Your task to perform on an android device: Go to notification settings Image 0: 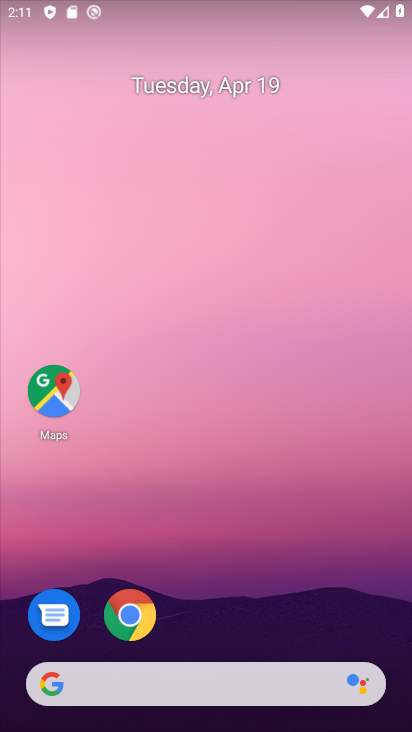
Step 0: drag from (217, 514) to (257, 52)
Your task to perform on an android device: Go to notification settings Image 1: 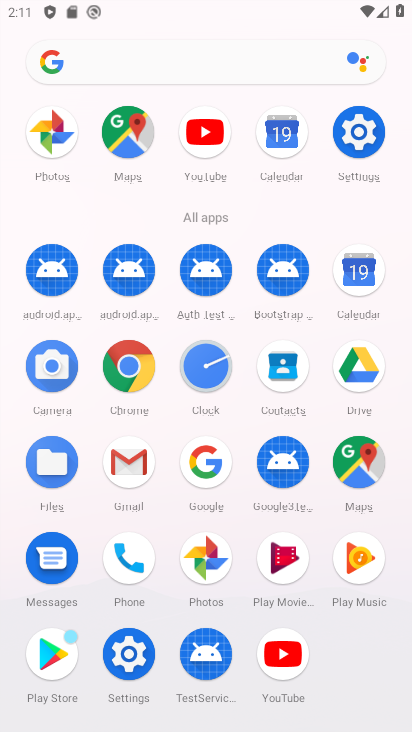
Step 1: click (361, 126)
Your task to perform on an android device: Go to notification settings Image 2: 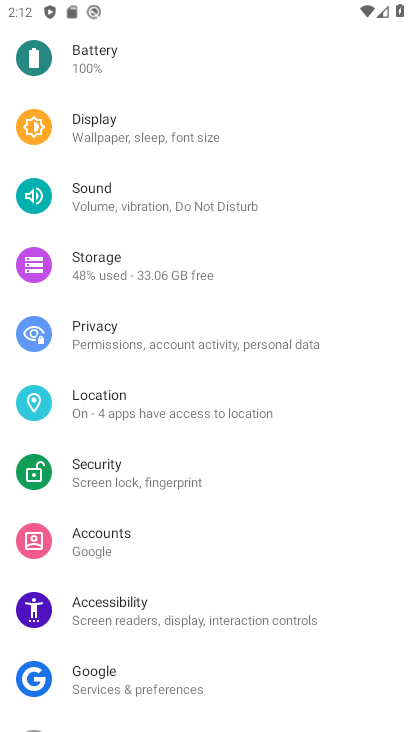
Step 2: drag from (161, 214) to (145, 462)
Your task to perform on an android device: Go to notification settings Image 3: 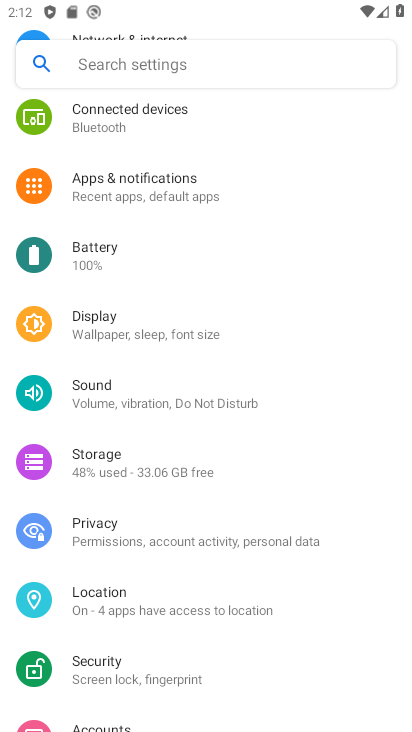
Step 3: click (160, 198)
Your task to perform on an android device: Go to notification settings Image 4: 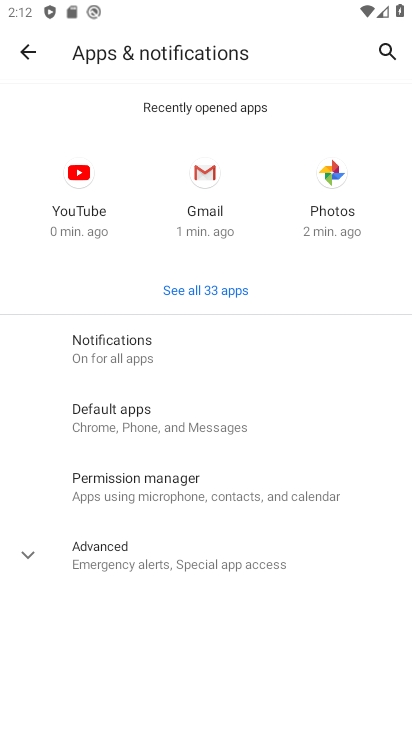
Step 4: click (193, 347)
Your task to perform on an android device: Go to notification settings Image 5: 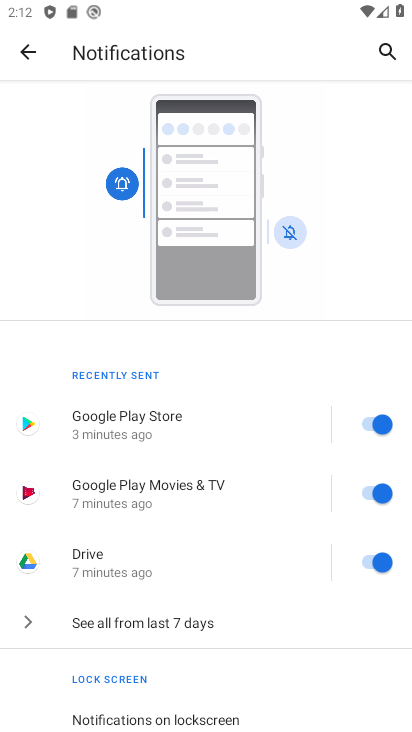
Step 5: task complete